Your task to perform on an android device: Go to Google maps Image 0: 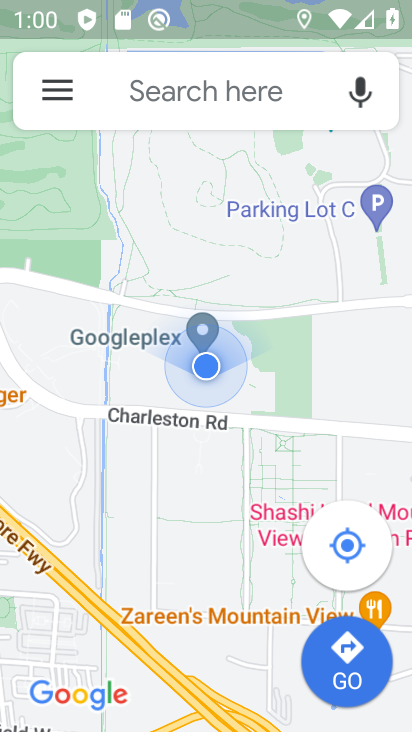
Step 0: task complete